Your task to perform on an android device: Open network settings Image 0: 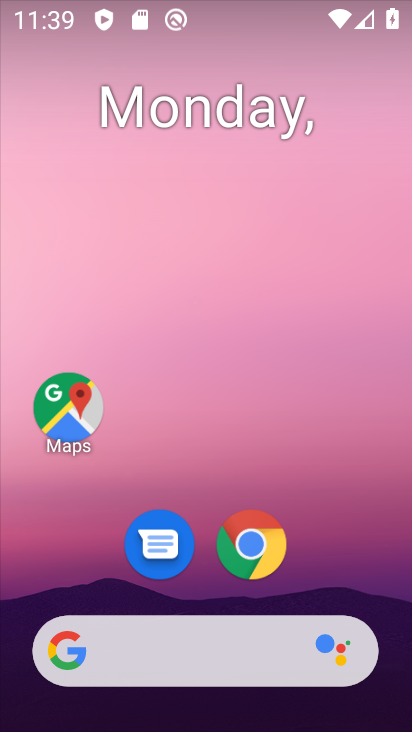
Step 0: drag from (340, 511) to (320, 60)
Your task to perform on an android device: Open network settings Image 1: 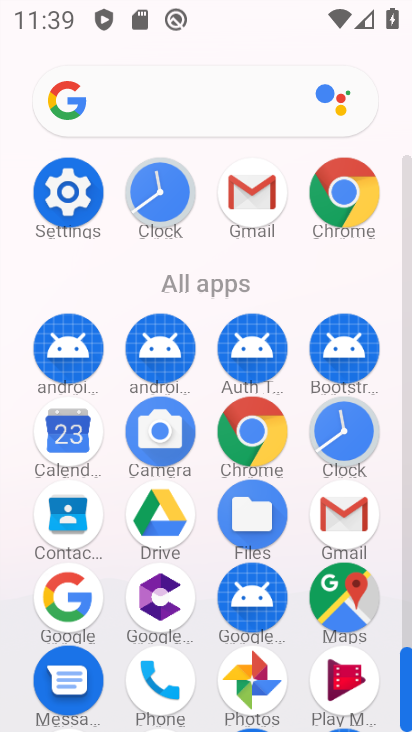
Step 1: click (44, 201)
Your task to perform on an android device: Open network settings Image 2: 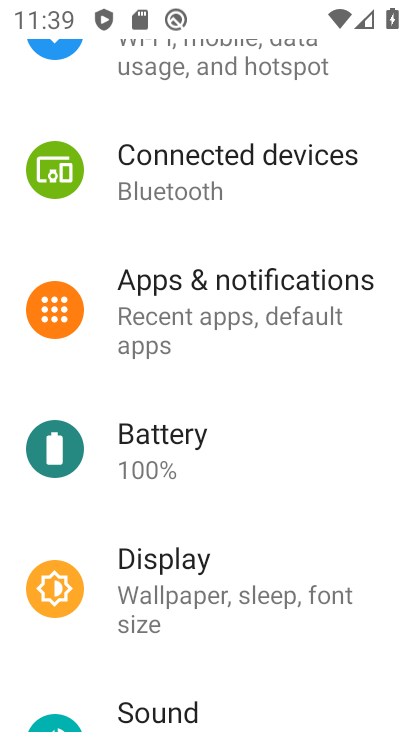
Step 2: drag from (262, 255) to (234, 531)
Your task to perform on an android device: Open network settings Image 3: 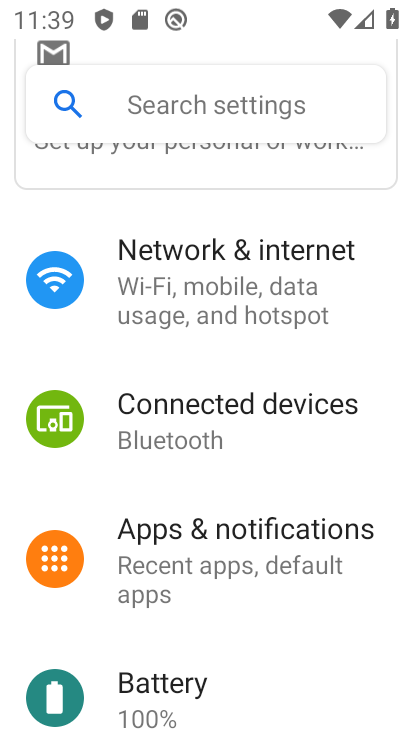
Step 3: click (247, 296)
Your task to perform on an android device: Open network settings Image 4: 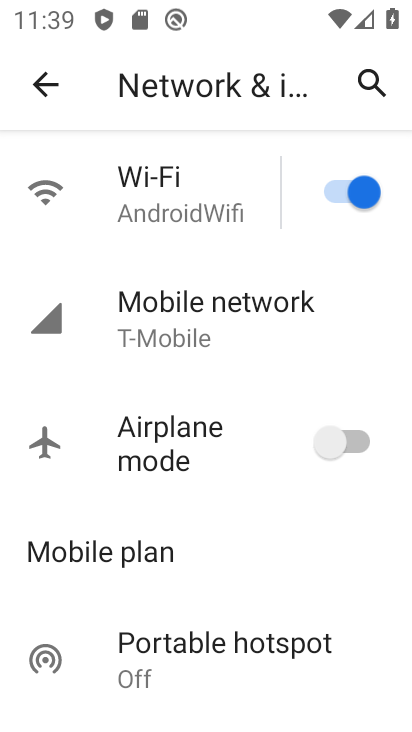
Step 4: task complete